Your task to perform on an android device: Go to eBay Image 0: 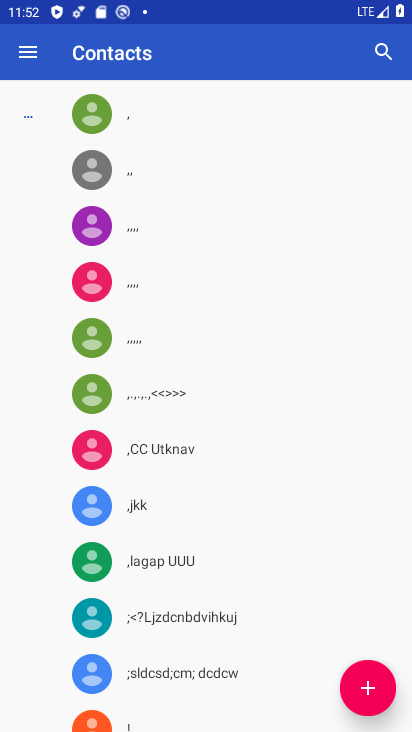
Step 0: press back button
Your task to perform on an android device: Go to eBay Image 1: 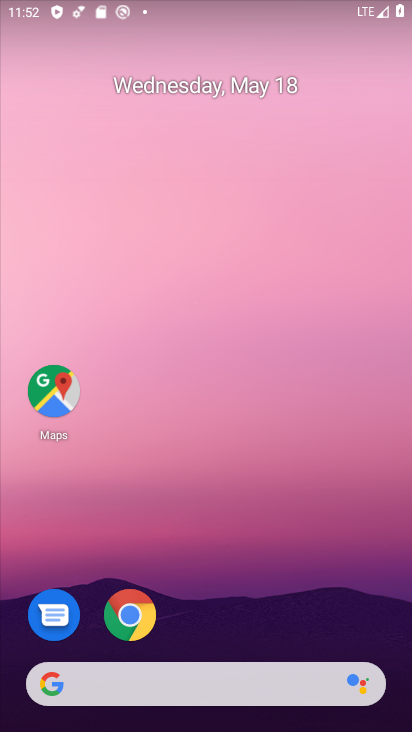
Step 1: drag from (292, 555) to (190, 26)
Your task to perform on an android device: Go to eBay Image 2: 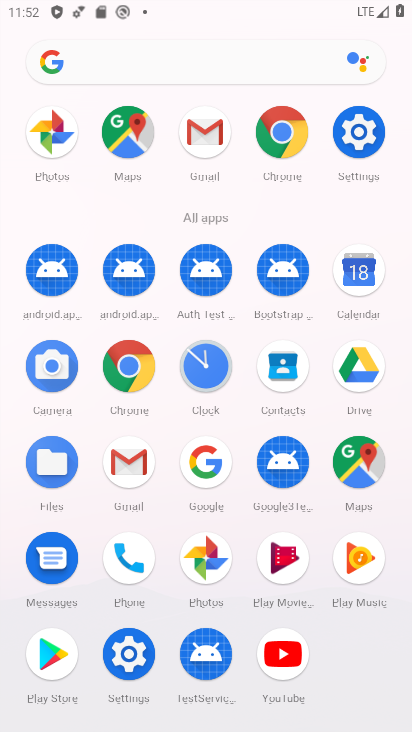
Step 2: click (128, 361)
Your task to perform on an android device: Go to eBay Image 3: 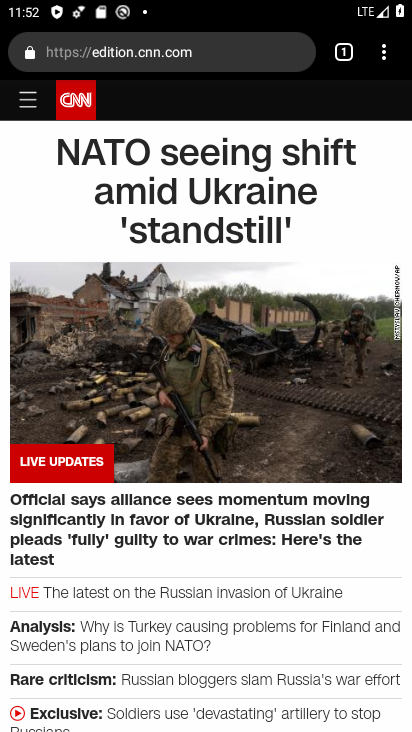
Step 3: click (183, 48)
Your task to perform on an android device: Go to eBay Image 4: 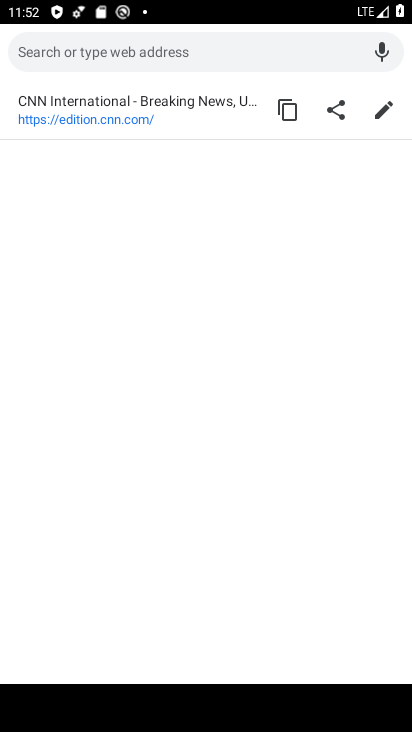
Step 4: type "eBay"
Your task to perform on an android device: Go to eBay Image 5: 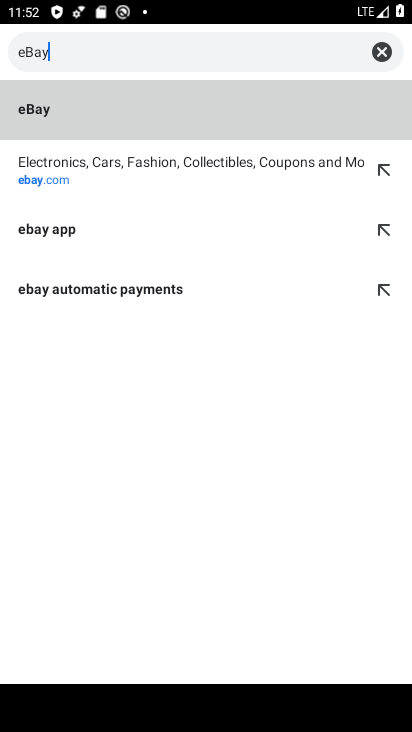
Step 5: type ""
Your task to perform on an android device: Go to eBay Image 6: 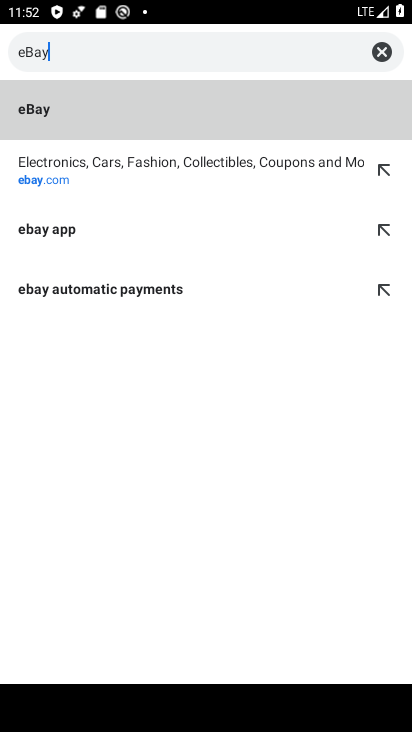
Step 6: click (39, 163)
Your task to perform on an android device: Go to eBay Image 7: 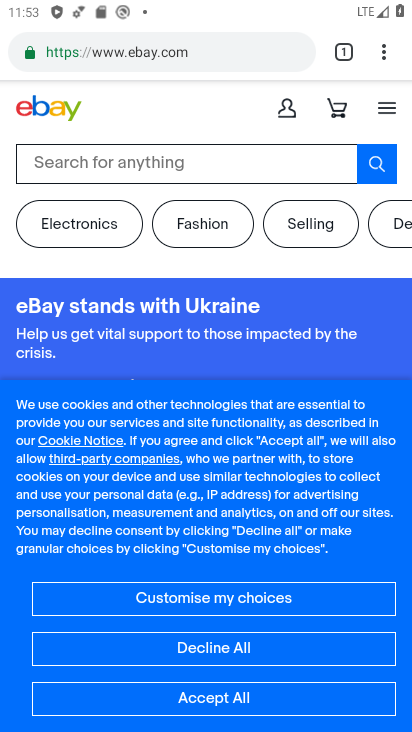
Step 7: click (180, 700)
Your task to perform on an android device: Go to eBay Image 8: 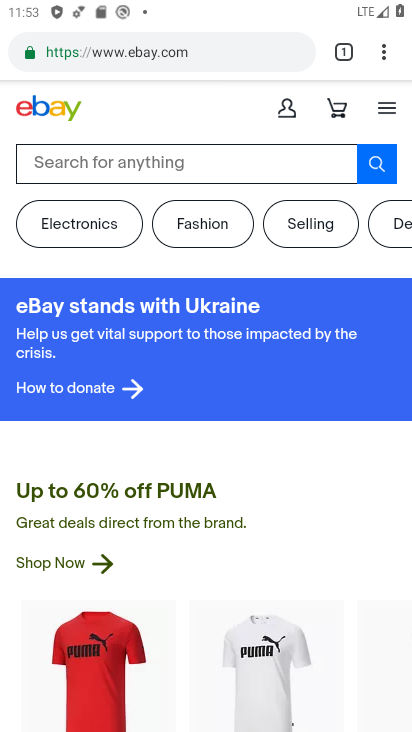
Step 8: task complete